Your task to perform on an android device: turn off improve location accuracy Image 0: 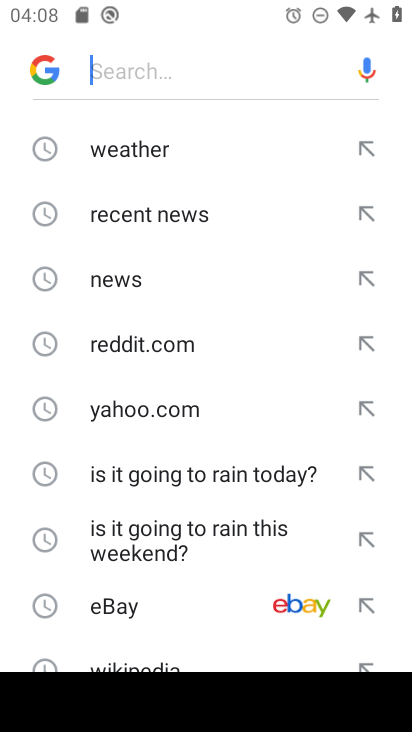
Step 0: press home button
Your task to perform on an android device: turn off improve location accuracy Image 1: 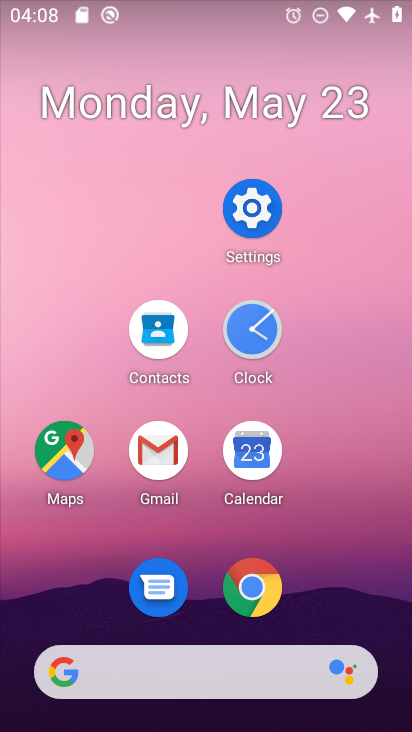
Step 1: click (259, 208)
Your task to perform on an android device: turn off improve location accuracy Image 2: 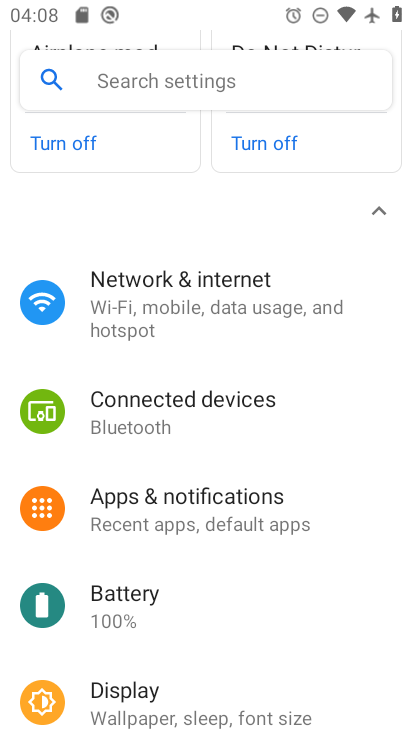
Step 2: drag from (202, 666) to (223, 110)
Your task to perform on an android device: turn off improve location accuracy Image 3: 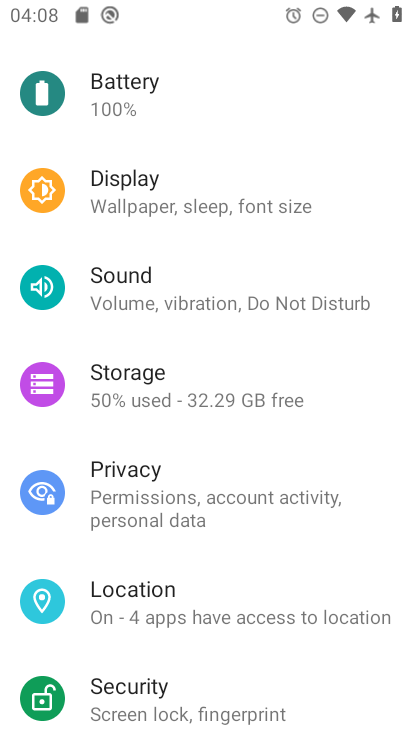
Step 3: click (244, 583)
Your task to perform on an android device: turn off improve location accuracy Image 4: 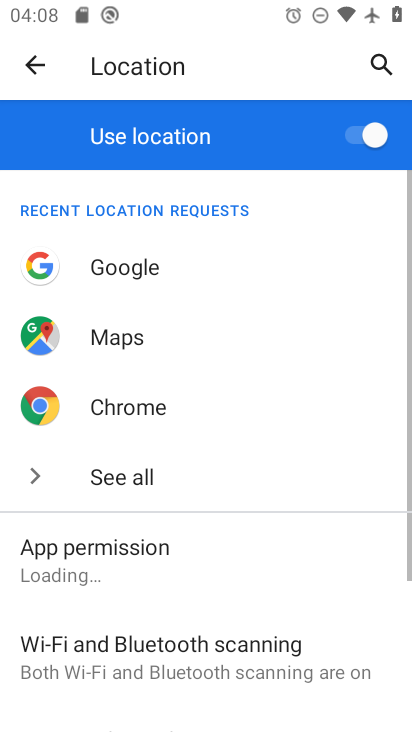
Step 4: drag from (244, 583) to (238, 287)
Your task to perform on an android device: turn off improve location accuracy Image 5: 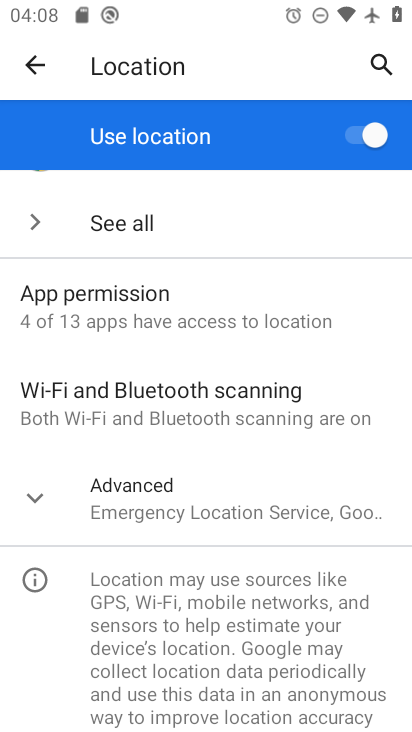
Step 5: click (254, 501)
Your task to perform on an android device: turn off improve location accuracy Image 6: 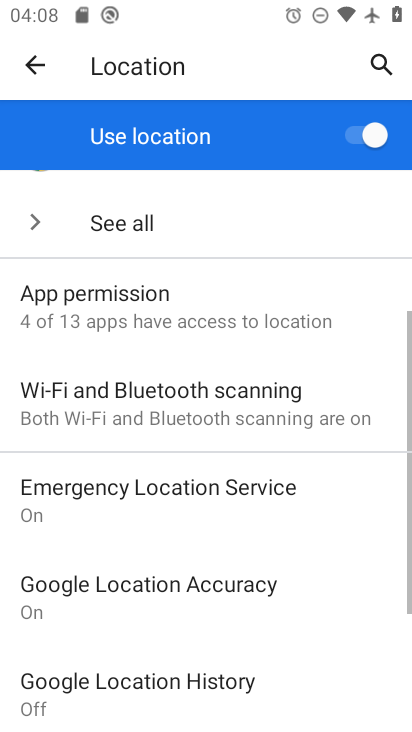
Step 6: drag from (240, 634) to (255, 304)
Your task to perform on an android device: turn off improve location accuracy Image 7: 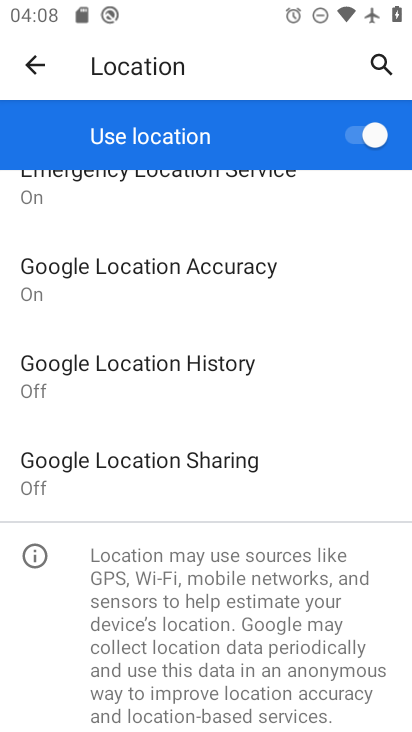
Step 7: click (224, 294)
Your task to perform on an android device: turn off improve location accuracy Image 8: 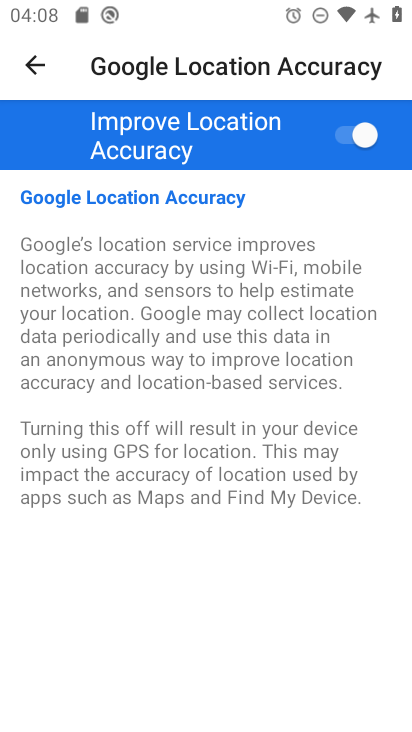
Step 8: click (343, 156)
Your task to perform on an android device: turn off improve location accuracy Image 9: 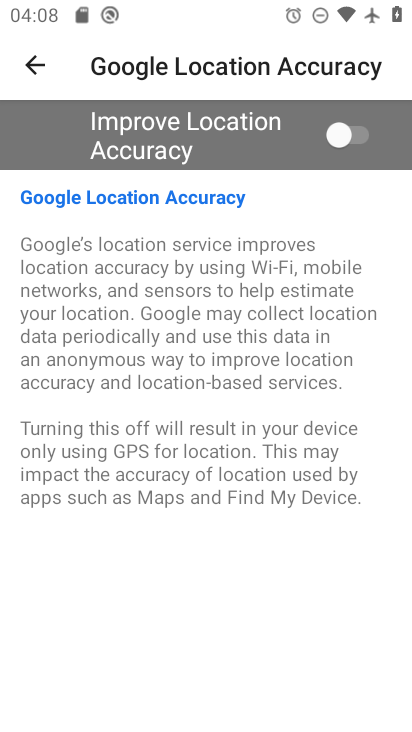
Step 9: task complete